Your task to perform on an android device: turn off notifications in google photos Image 0: 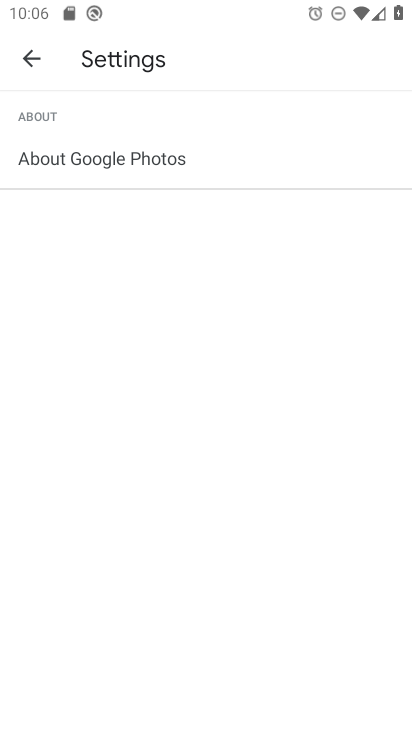
Step 0: press home button
Your task to perform on an android device: turn off notifications in google photos Image 1: 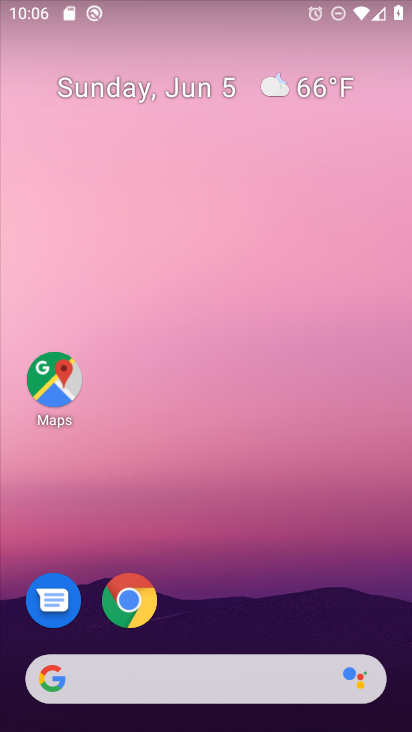
Step 1: drag from (394, 649) to (397, 510)
Your task to perform on an android device: turn off notifications in google photos Image 2: 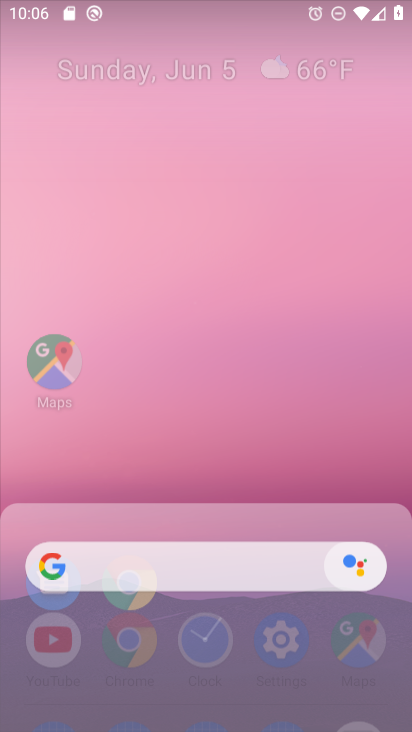
Step 2: drag from (354, 151) to (307, 35)
Your task to perform on an android device: turn off notifications in google photos Image 3: 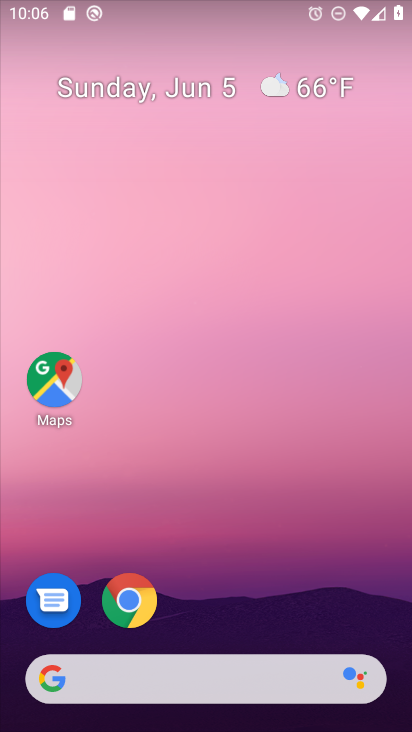
Step 3: drag from (373, 612) to (340, 8)
Your task to perform on an android device: turn off notifications in google photos Image 4: 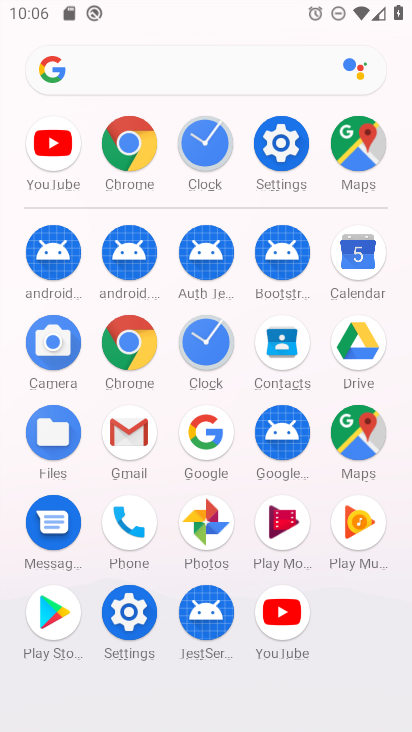
Step 4: click (214, 505)
Your task to perform on an android device: turn off notifications in google photos Image 5: 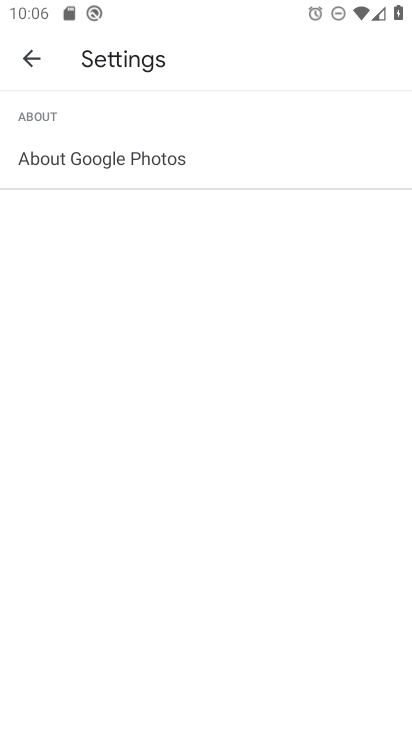
Step 5: press back button
Your task to perform on an android device: turn off notifications in google photos Image 6: 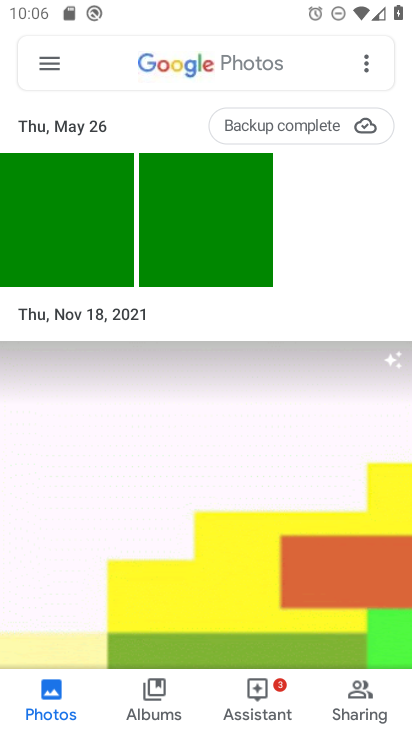
Step 6: click (43, 51)
Your task to perform on an android device: turn off notifications in google photos Image 7: 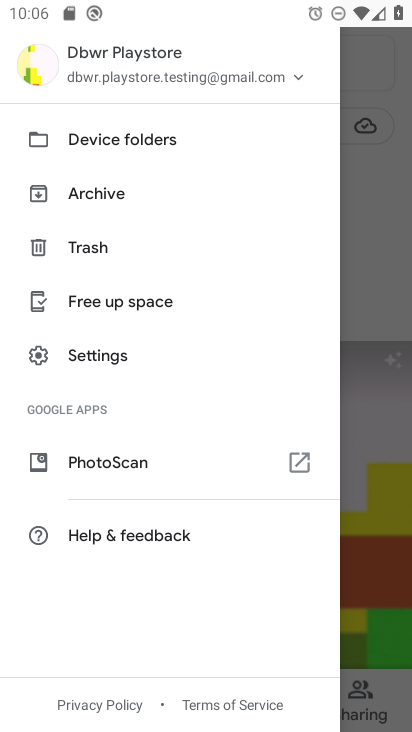
Step 7: click (133, 373)
Your task to perform on an android device: turn off notifications in google photos Image 8: 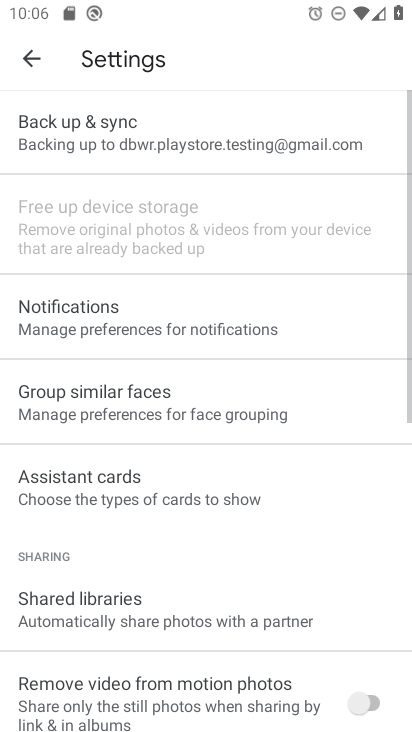
Step 8: click (127, 336)
Your task to perform on an android device: turn off notifications in google photos Image 9: 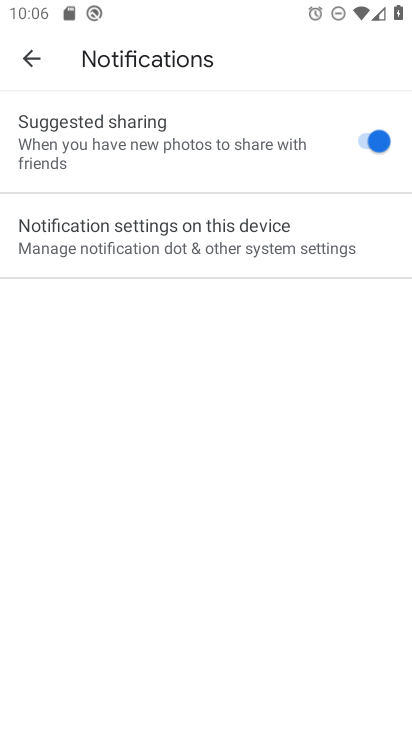
Step 9: click (349, 126)
Your task to perform on an android device: turn off notifications in google photos Image 10: 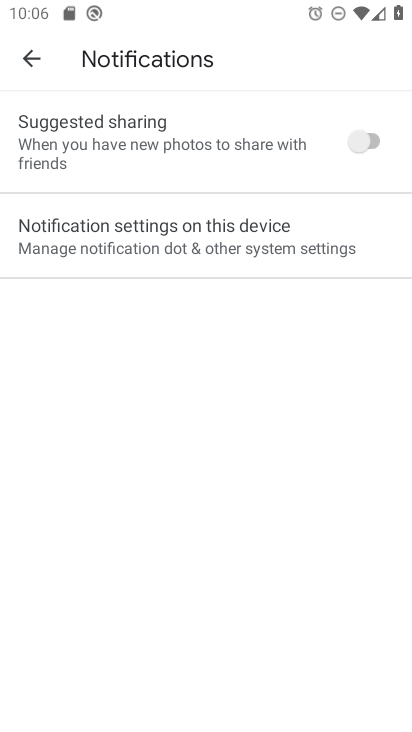
Step 10: task complete